Your task to perform on an android device: open a bookmark in the chrome app Image 0: 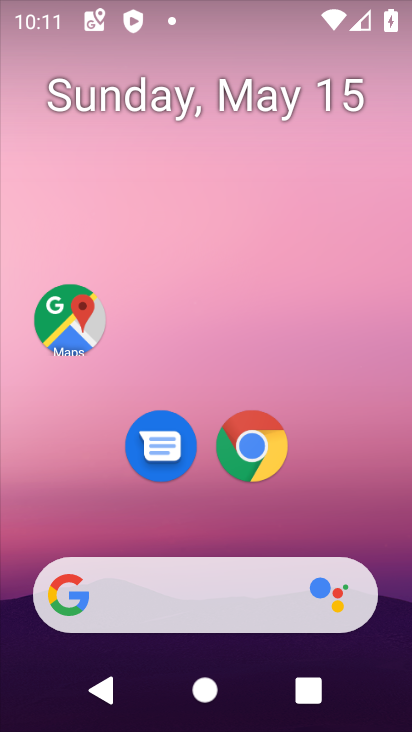
Step 0: click (247, 443)
Your task to perform on an android device: open a bookmark in the chrome app Image 1: 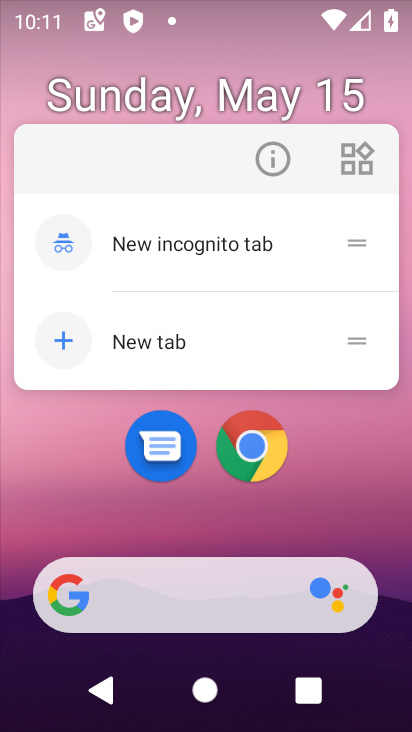
Step 1: click (243, 455)
Your task to perform on an android device: open a bookmark in the chrome app Image 2: 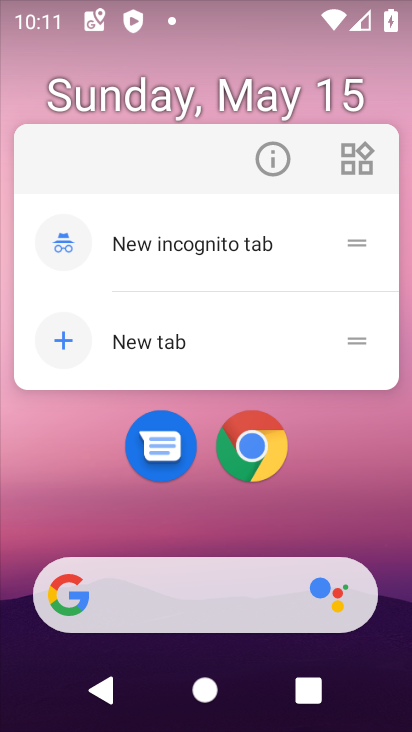
Step 2: click (253, 470)
Your task to perform on an android device: open a bookmark in the chrome app Image 3: 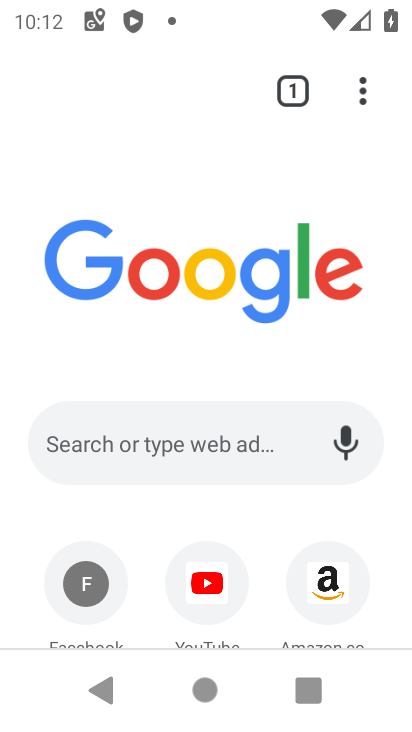
Step 3: drag from (361, 100) to (313, 313)
Your task to perform on an android device: open a bookmark in the chrome app Image 4: 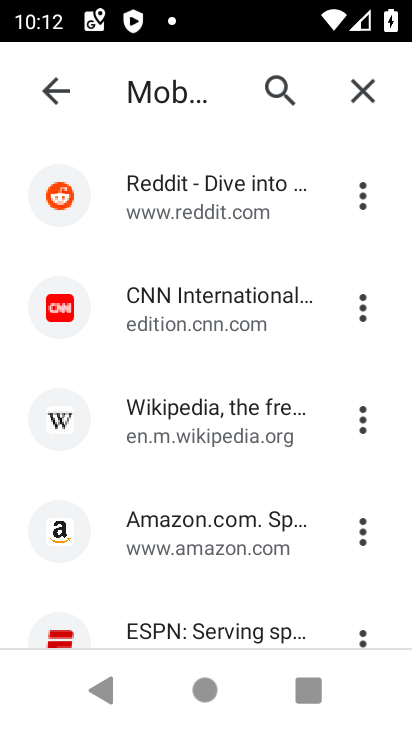
Step 4: click (211, 322)
Your task to perform on an android device: open a bookmark in the chrome app Image 5: 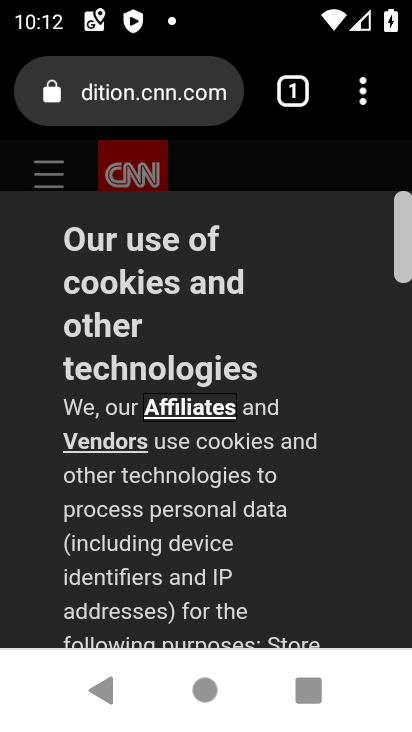
Step 5: task complete